Your task to perform on an android device: uninstall "File Manager" Image 0: 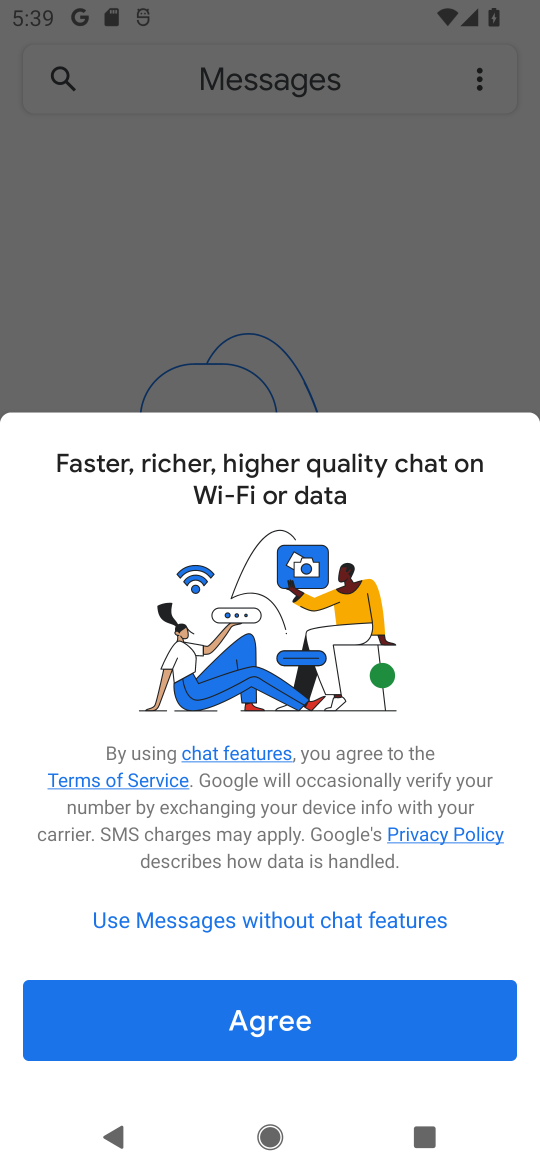
Step 0: press home button
Your task to perform on an android device: uninstall "File Manager" Image 1: 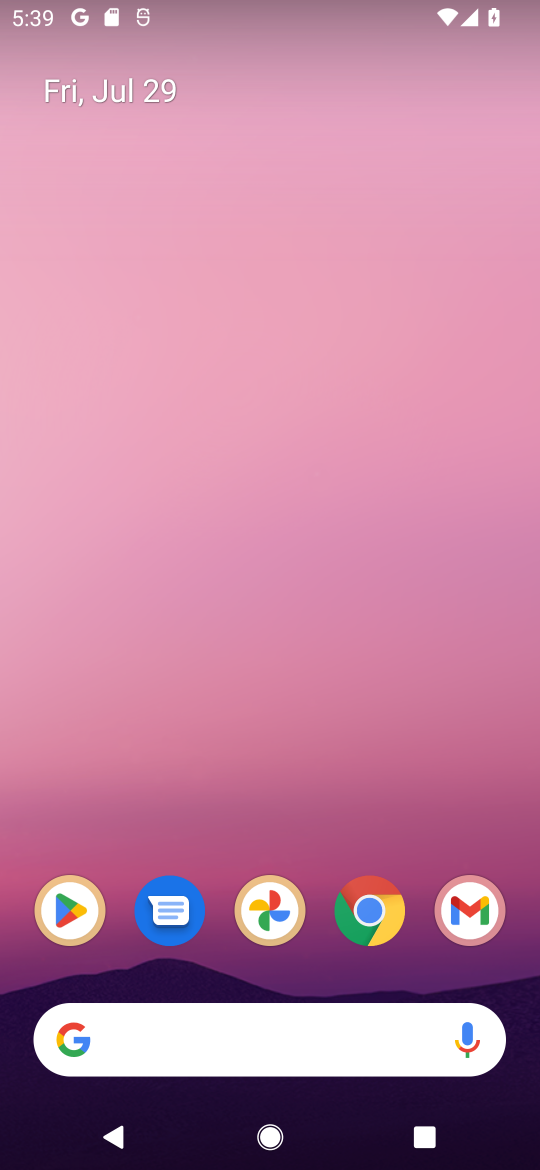
Step 1: click (73, 906)
Your task to perform on an android device: uninstall "File Manager" Image 2: 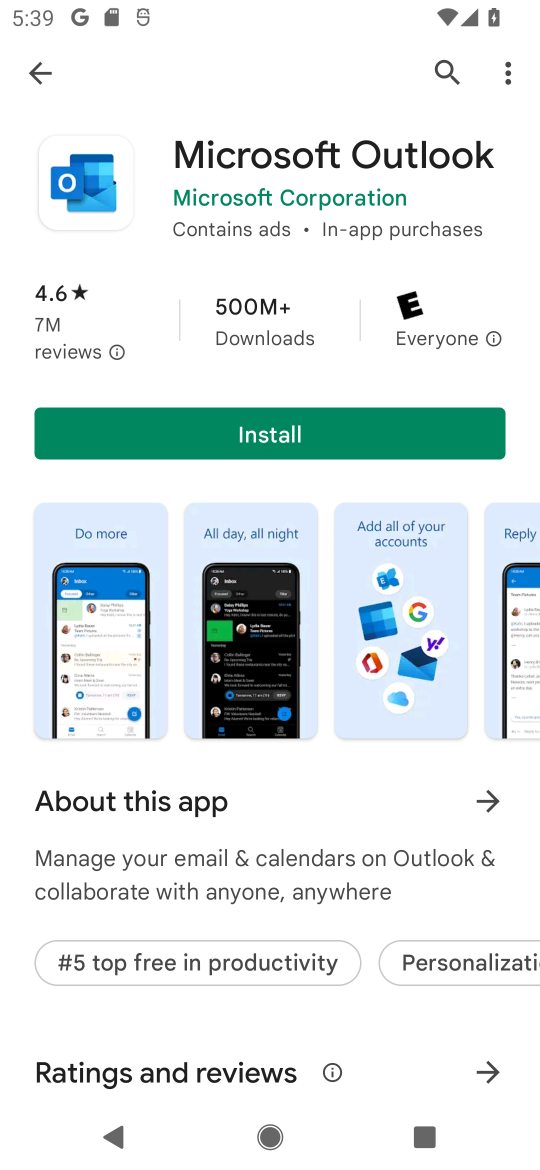
Step 2: click (436, 60)
Your task to perform on an android device: uninstall "File Manager" Image 3: 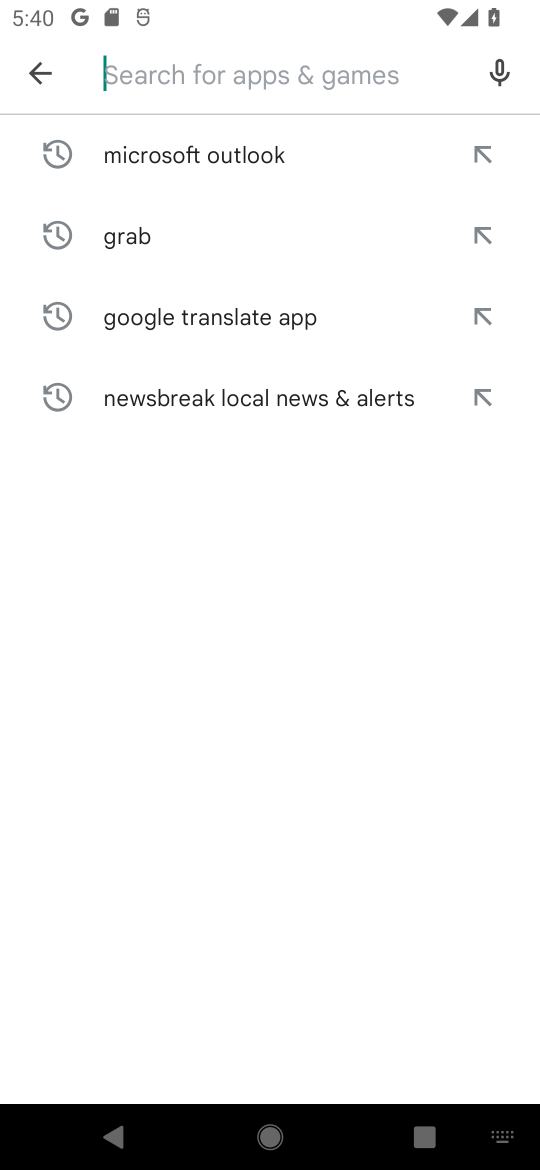
Step 3: type "file manager"
Your task to perform on an android device: uninstall "File Manager" Image 4: 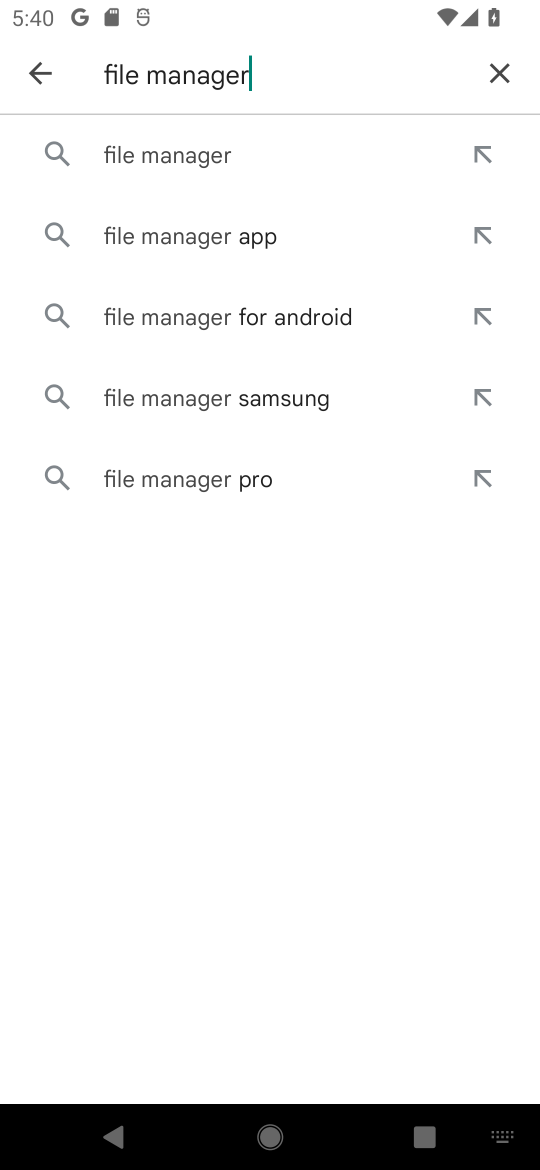
Step 4: click (279, 146)
Your task to perform on an android device: uninstall "File Manager" Image 5: 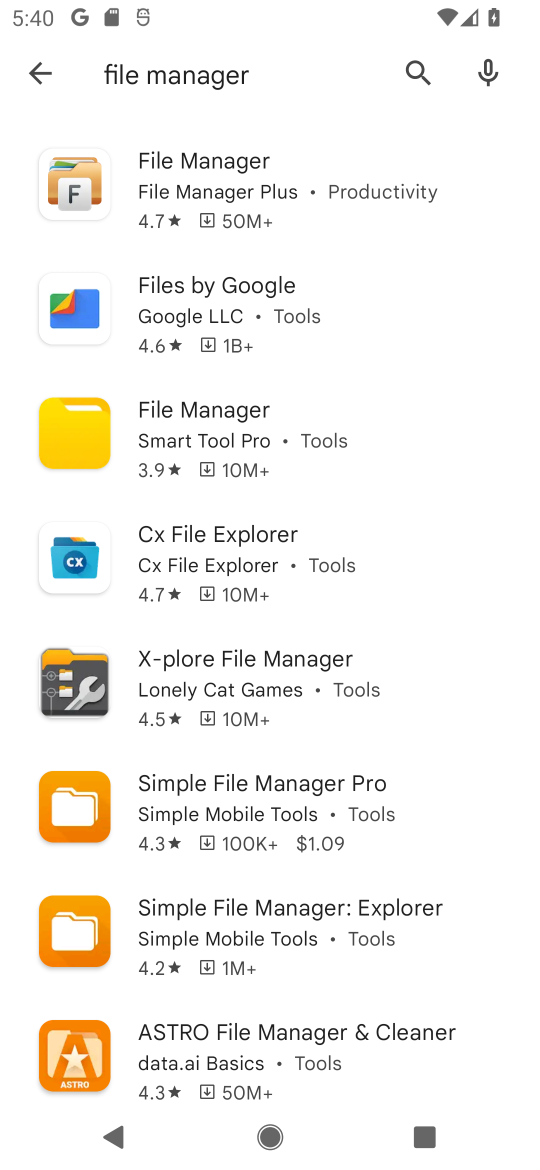
Step 5: click (294, 182)
Your task to perform on an android device: uninstall "File Manager" Image 6: 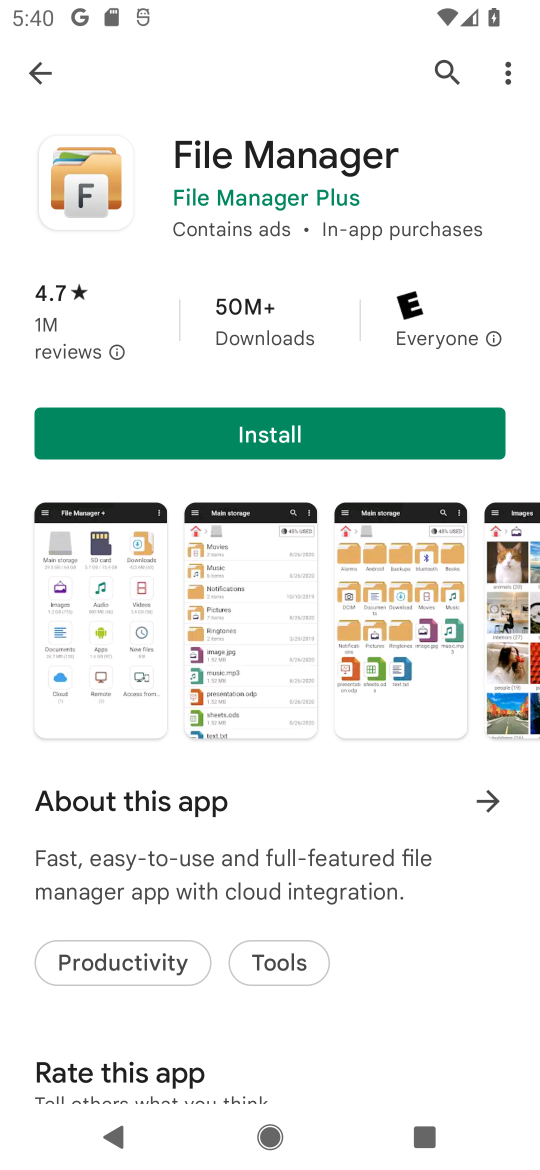
Step 6: task complete